Your task to perform on an android device: Go to Android settings Image 0: 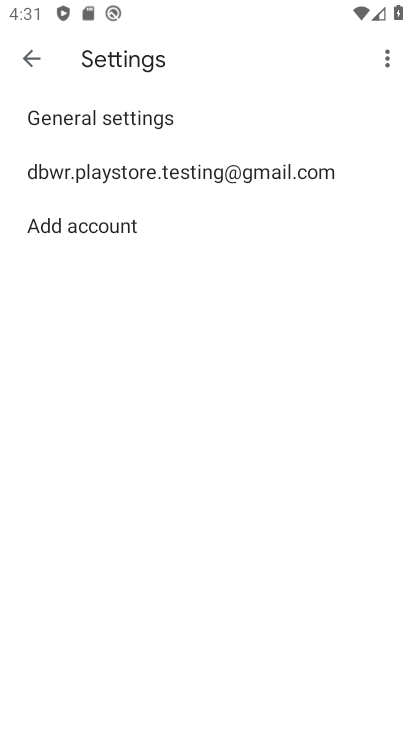
Step 0: press home button
Your task to perform on an android device: Go to Android settings Image 1: 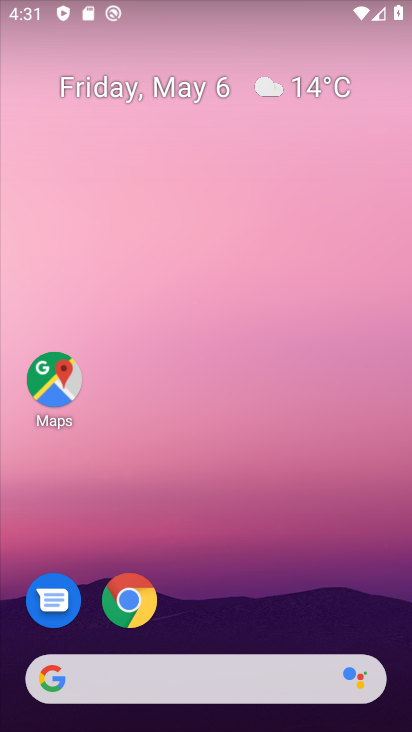
Step 1: drag from (343, 620) to (358, 128)
Your task to perform on an android device: Go to Android settings Image 2: 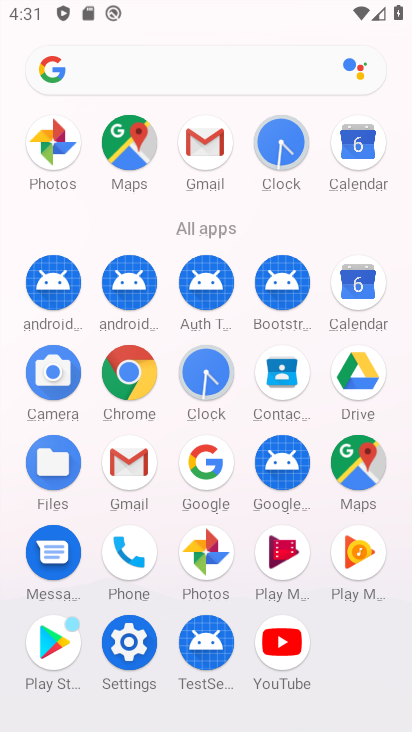
Step 2: click (121, 658)
Your task to perform on an android device: Go to Android settings Image 3: 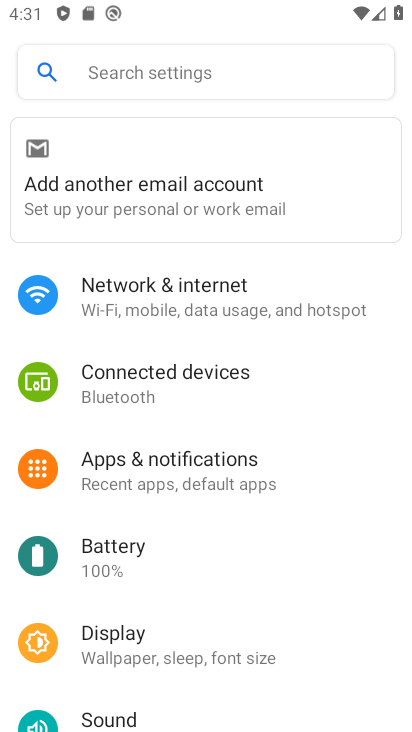
Step 3: drag from (156, 678) to (184, 312)
Your task to perform on an android device: Go to Android settings Image 4: 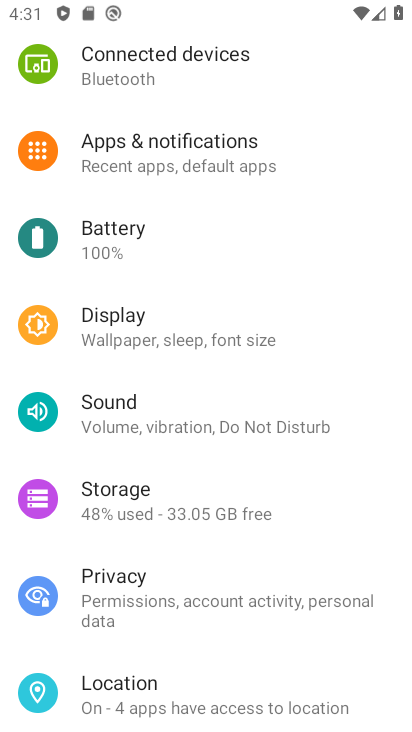
Step 4: drag from (169, 623) to (211, 254)
Your task to perform on an android device: Go to Android settings Image 5: 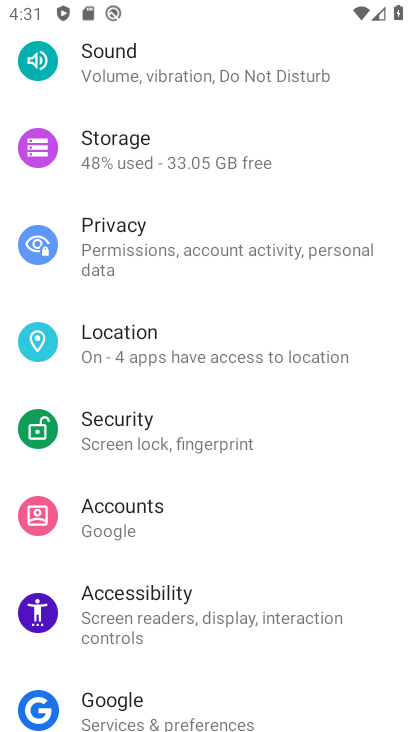
Step 5: drag from (163, 700) to (199, 263)
Your task to perform on an android device: Go to Android settings Image 6: 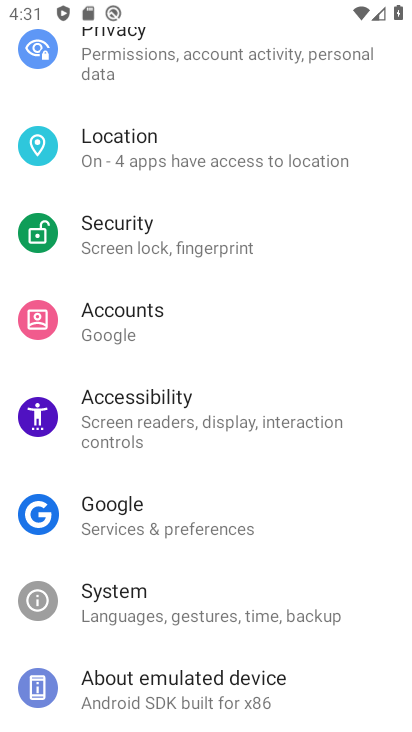
Step 6: click (175, 666)
Your task to perform on an android device: Go to Android settings Image 7: 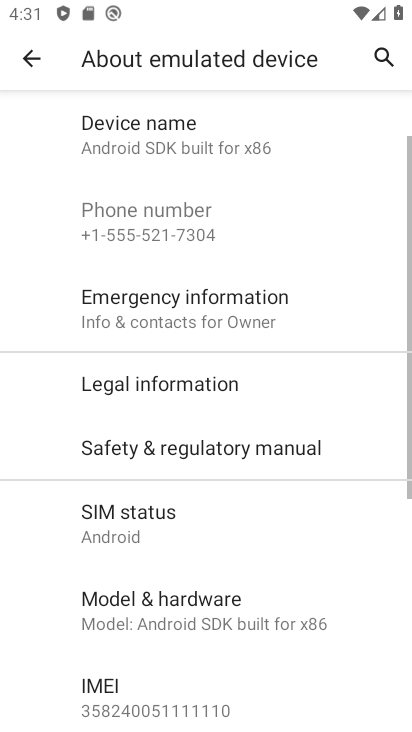
Step 7: drag from (285, 566) to (215, 646)
Your task to perform on an android device: Go to Android settings Image 8: 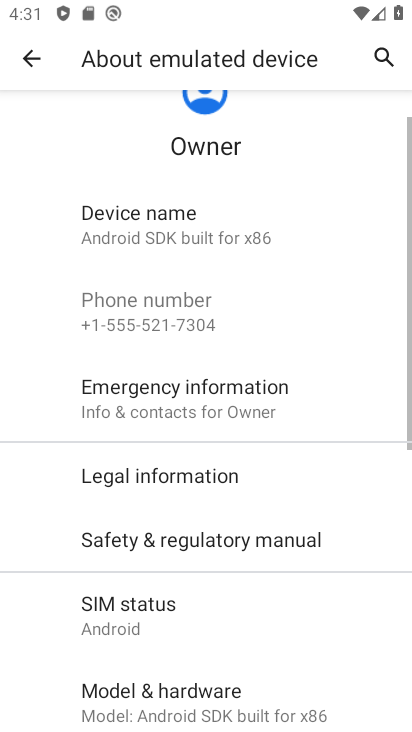
Step 8: drag from (242, 615) to (281, 205)
Your task to perform on an android device: Go to Android settings Image 9: 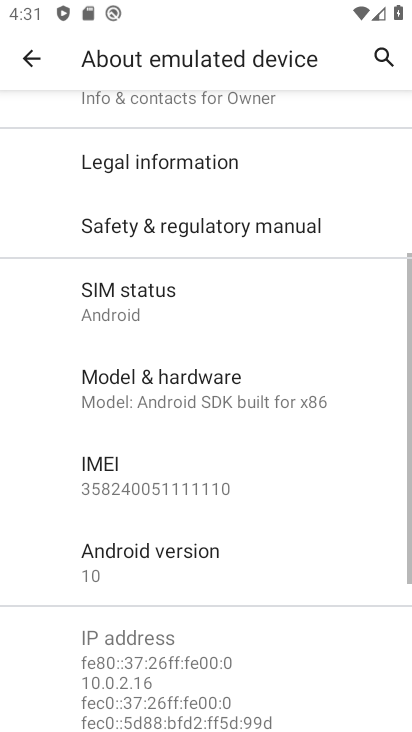
Step 9: click (181, 575)
Your task to perform on an android device: Go to Android settings Image 10: 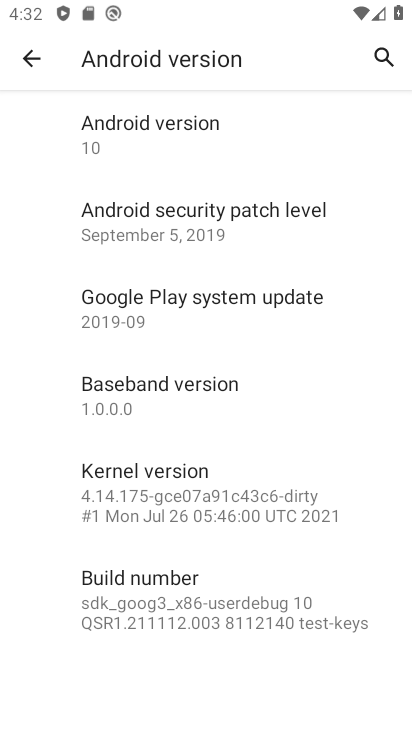
Step 10: task complete